Your task to perform on an android device: turn on javascript in the chrome app Image 0: 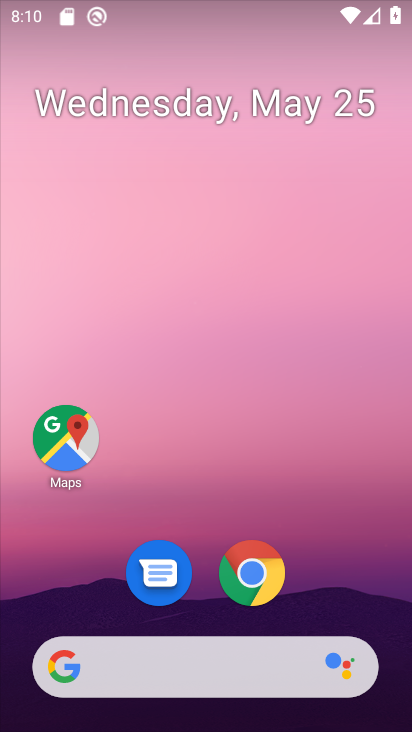
Step 0: click (237, 570)
Your task to perform on an android device: turn on javascript in the chrome app Image 1: 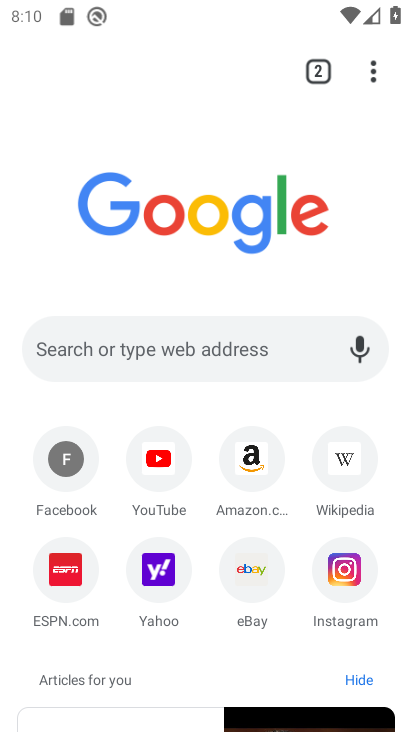
Step 1: click (369, 59)
Your task to perform on an android device: turn on javascript in the chrome app Image 2: 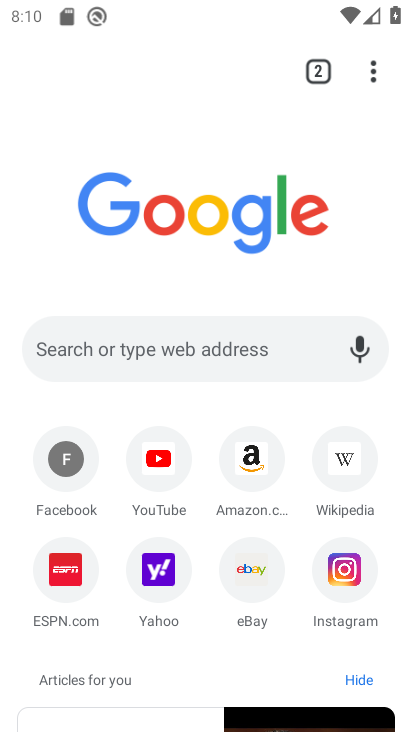
Step 2: click (372, 71)
Your task to perform on an android device: turn on javascript in the chrome app Image 3: 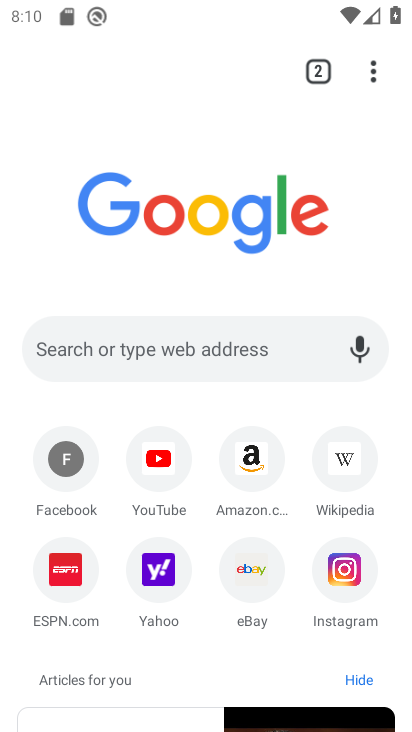
Step 3: click (375, 72)
Your task to perform on an android device: turn on javascript in the chrome app Image 4: 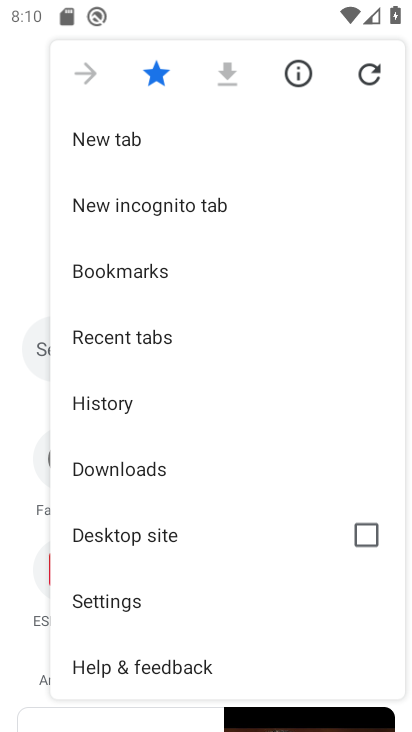
Step 4: drag from (254, 644) to (245, 384)
Your task to perform on an android device: turn on javascript in the chrome app Image 5: 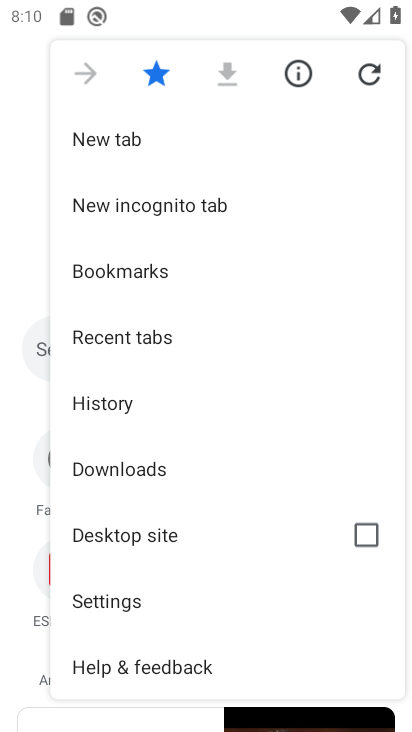
Step 5: click (113, 595)
Your task to perform on an android device: turn on javascript in the chrome app Image 6: 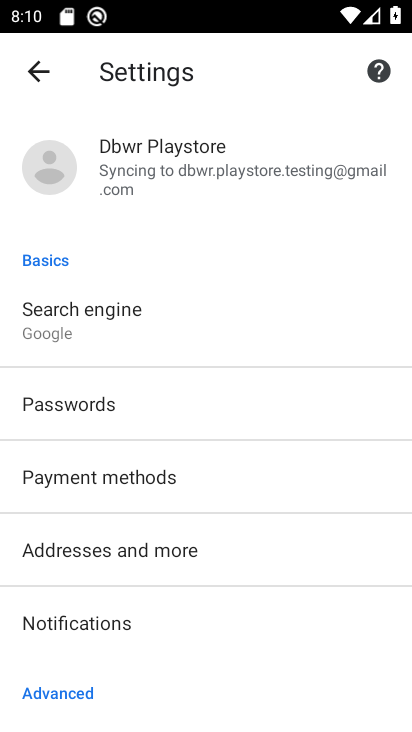
Step 6: drag from (186, 695) to (195, 386)
Your task to perform on an android device: turn on javascript in the chrome app Image 7: 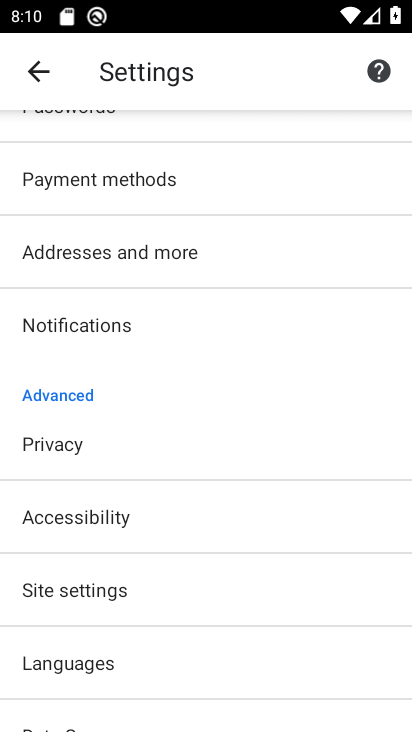
Step 7: click (62, 582)
Your task to perform on an android device: turn on javascript in the chrome app Image 8: 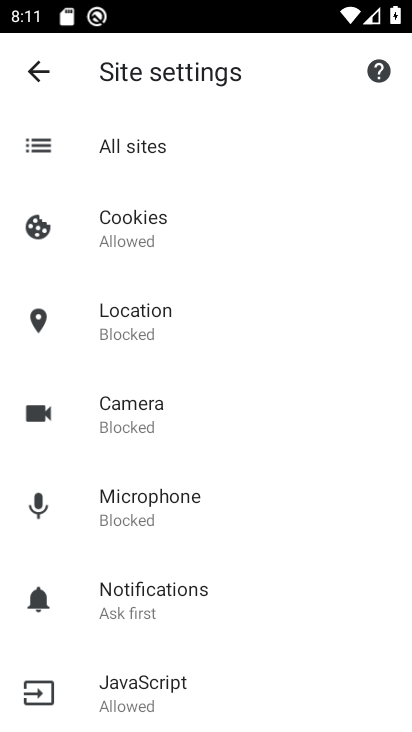
Step 8: click (155, 688)
Your task to perform on an android device: turn on javascript in the chrome app Image 9: 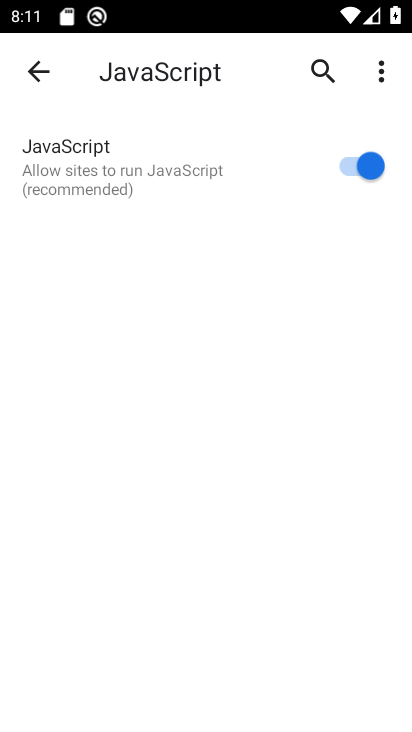
Step 9: task complete